Your task to perform on an android device: turn off data saver in the chrome app Image 0: 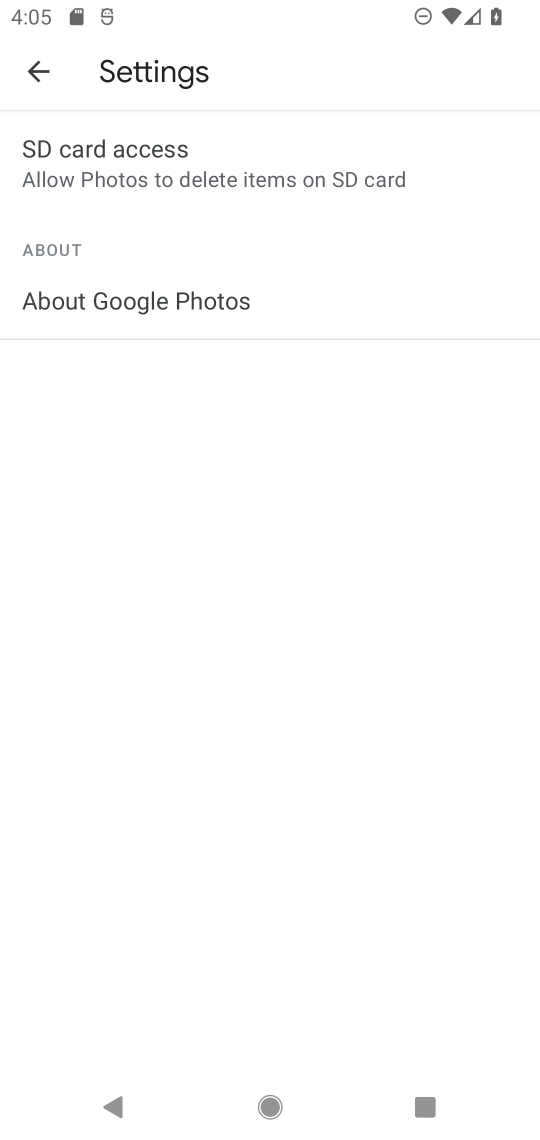
Step 0: press home button
Your task to perform on an android device: turn off data saver in the chrome app Image 1: 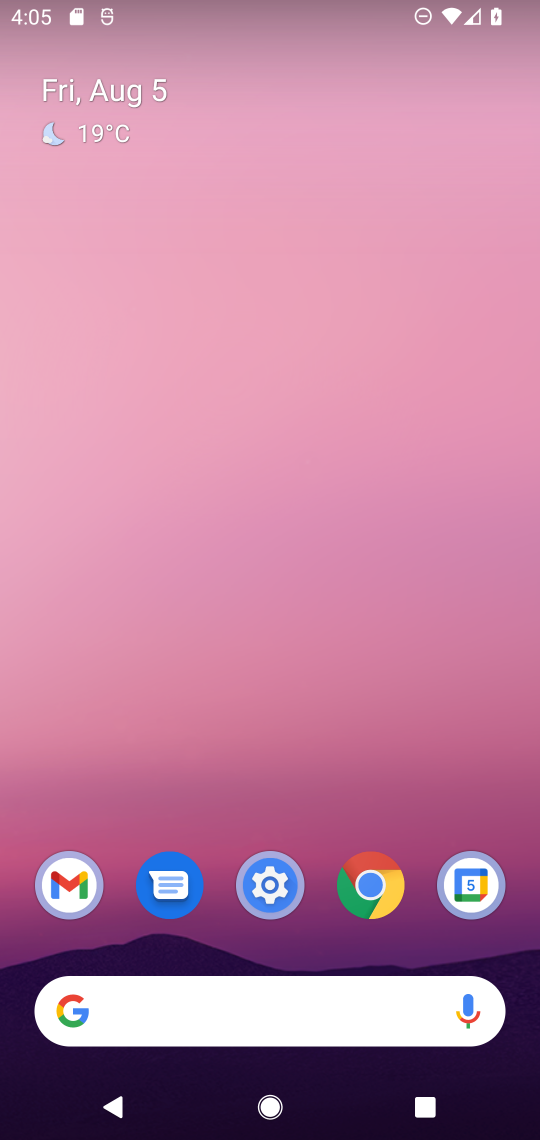
Step 1: click (359, 886)
Your task to perform on an android device: turn off data saver in the chrome app Image 2: 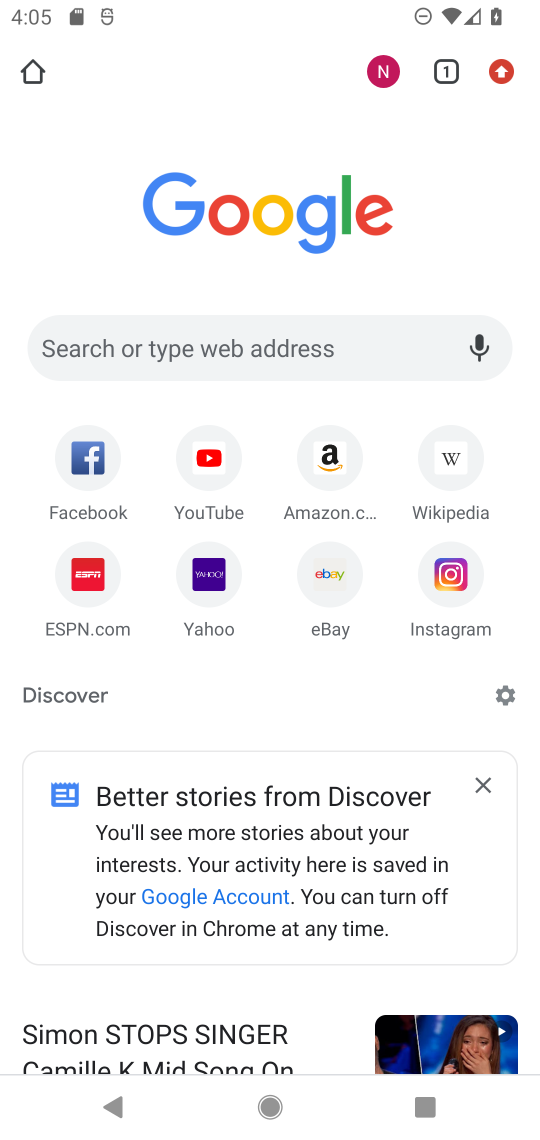
Step 2: click (505, 80)
Your task to perform on an android device: turn off data saver in the chrome app Image 3: 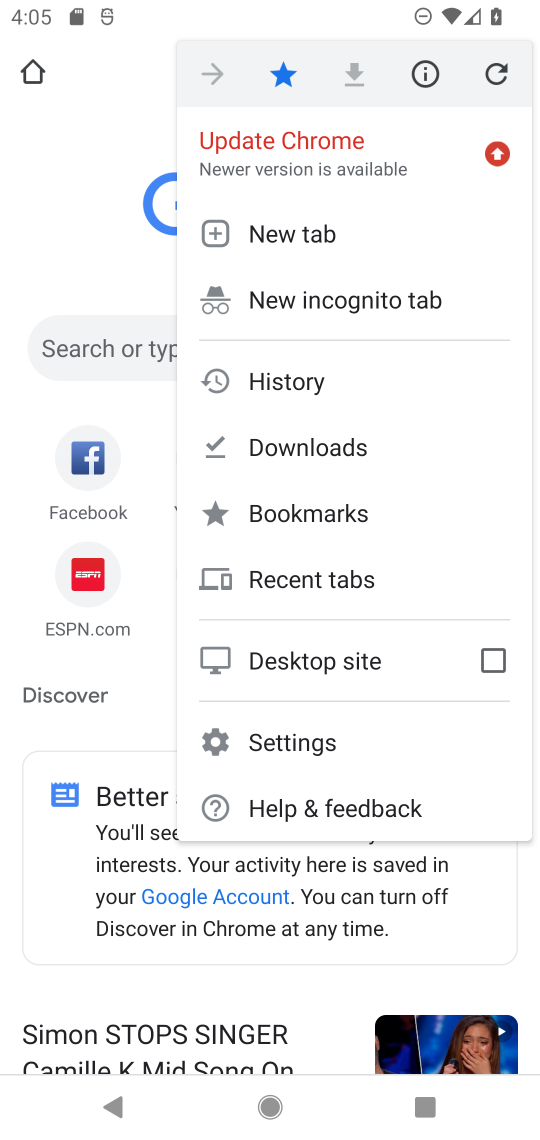
Step 3: click (301, 742)
Your task to perform on an android device: turn off data saver in the chrome app Image 4: 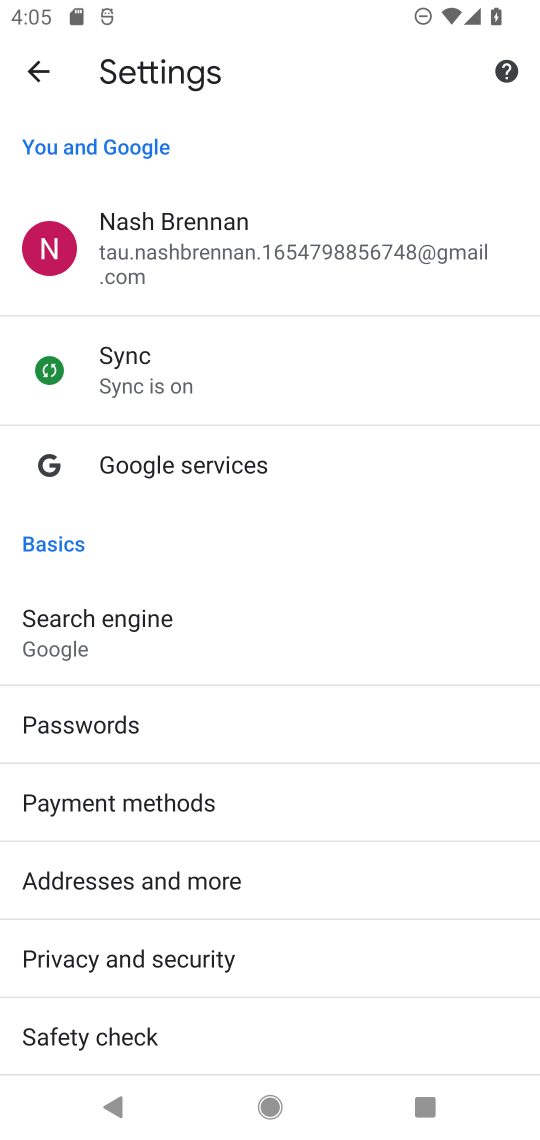
Step 4: drag from (181, 1021) to (178, 684)
Your task to perform on an android device: turn off data saver in the chrome app Image 5: 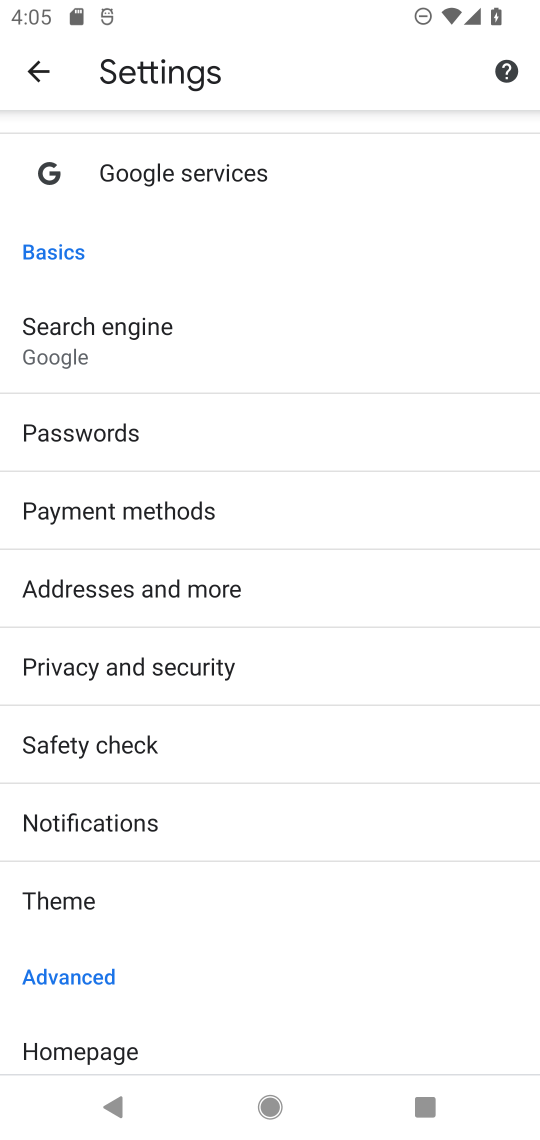
Step 5: drag from (117, 988) to (98, 598)
Your task to perform on an android device: turn off data saver in the chrome app Image 6: 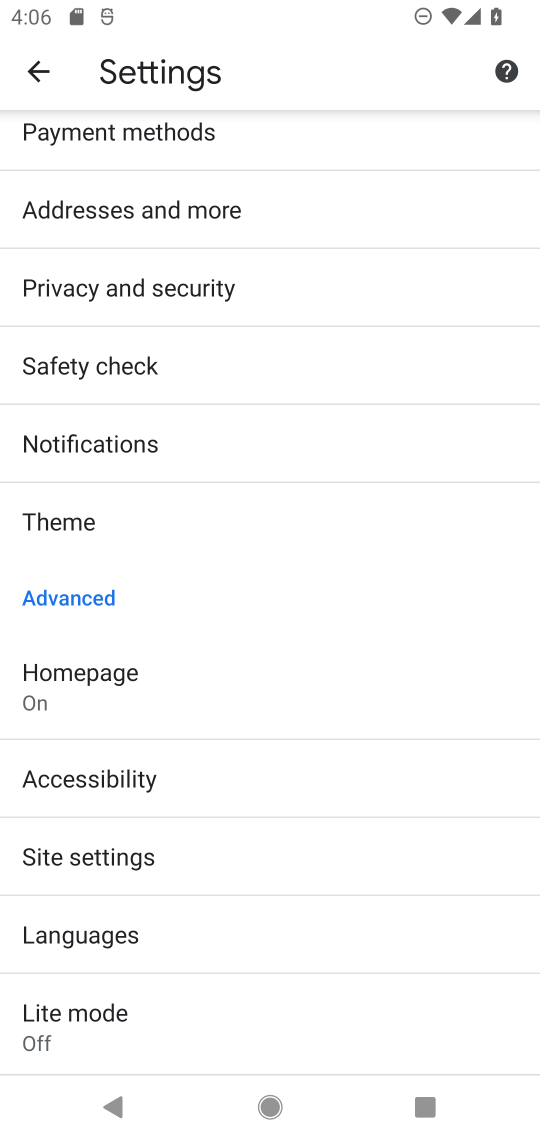
Step 6: click (99, 1012)
Your task to perform on an android device: turn off data saver in the chrome app Image 7: 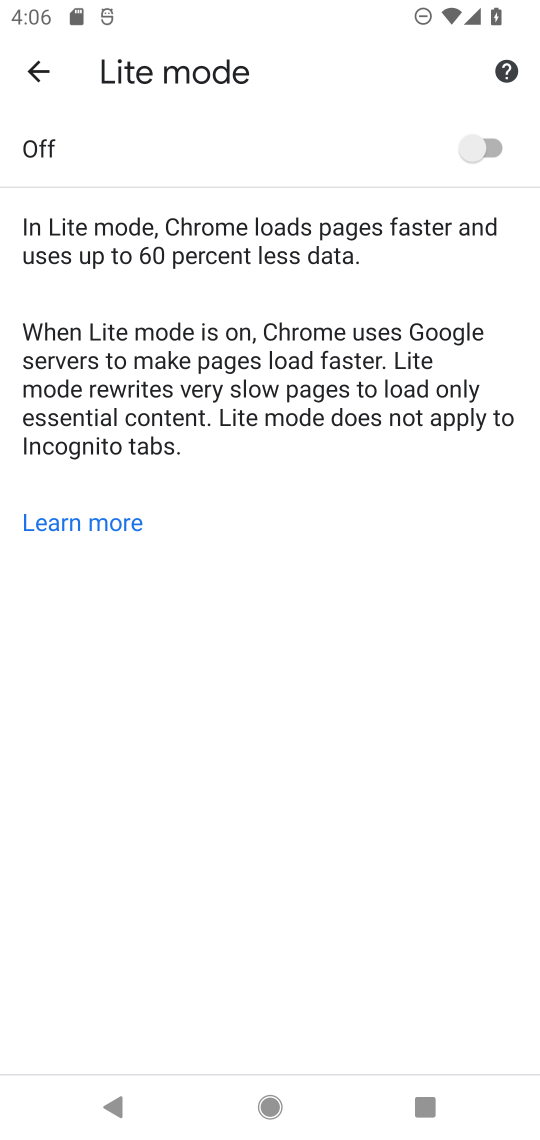
Step 7: task complete